Your task to perform on an android device: snooze an email in the gmail app Image 0: 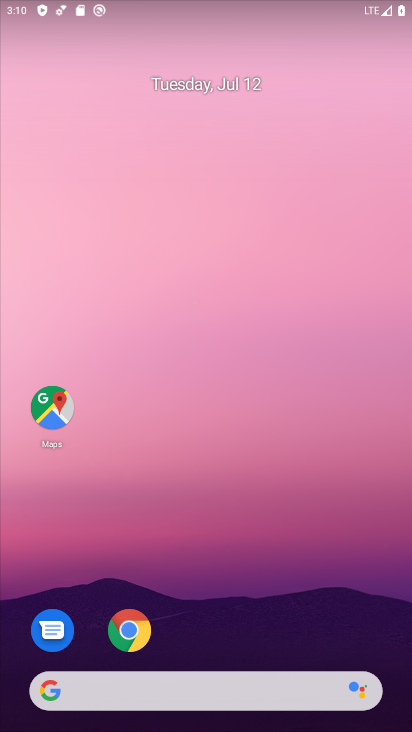
Step 0: drag from (209, 526) to (92, 32)
Your task to perform on an android device: snooze an email in the gmail app Image 1: 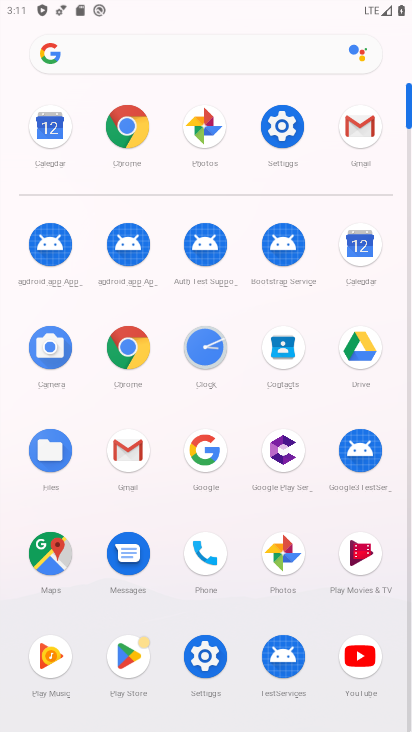
Step 1: click (139, 452)
Your task to perform on an android device: snooze an email in the gmail app Image 2: 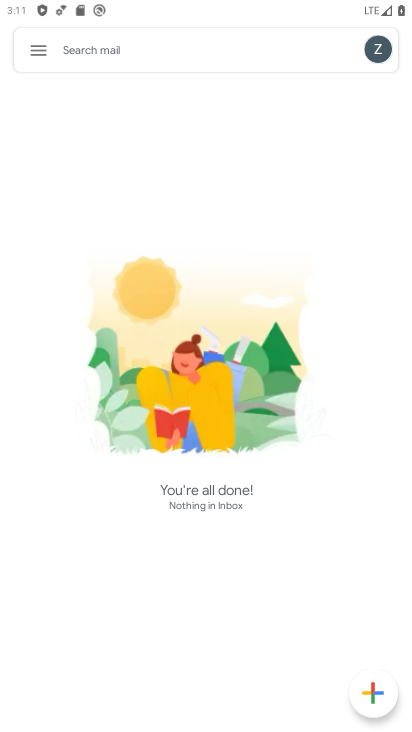
Step 2: task complete